Your task to perform on an android device: toggle wifi Image 0: 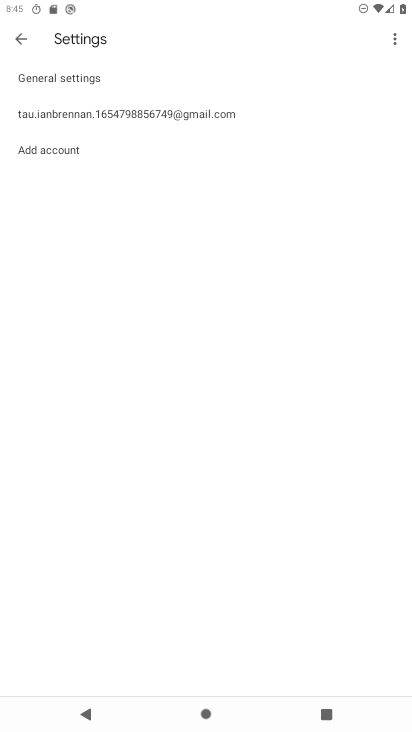
Step 0: press home button
Your task to perform on an android device: toggle wifi Image 1: 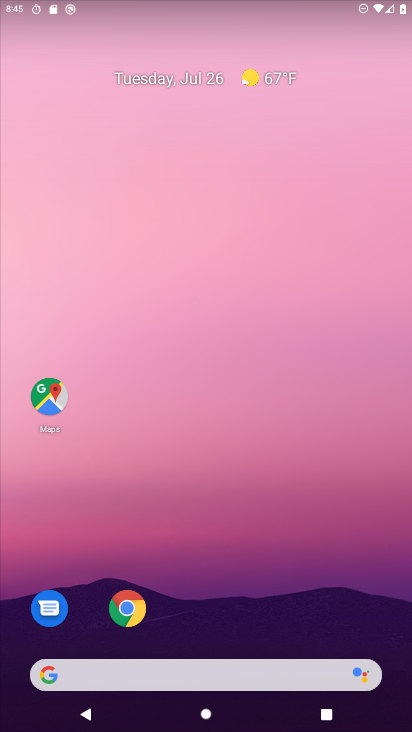
Step 1: drag from (239, 657) to (264, 262)
Your task to perform on an android device: toggle wifi Image 2: 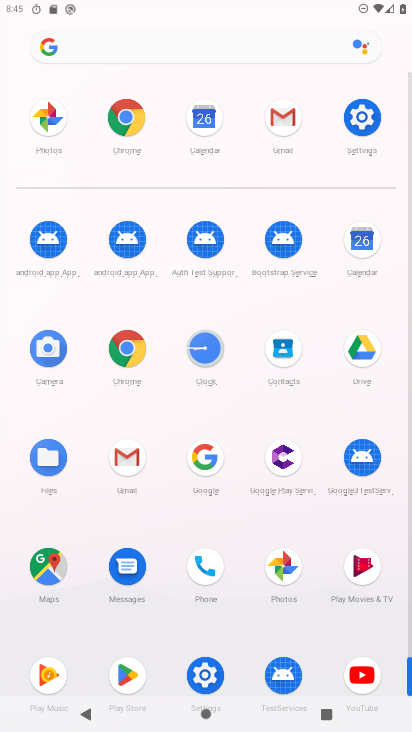
Step 2: click (368, 137)
Your task to perform on an android device: toggle wifi Image 3: 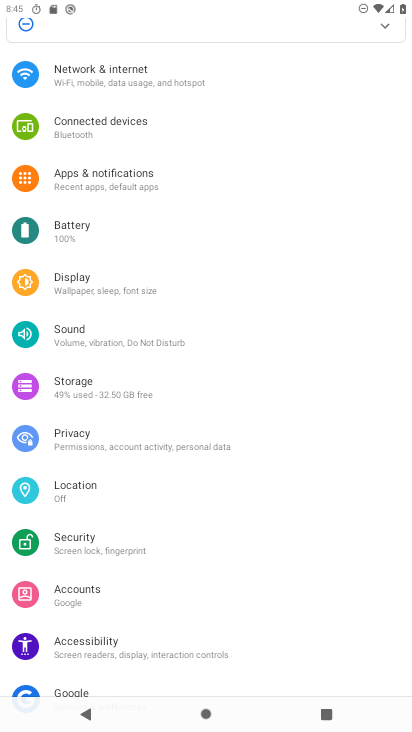
Step 3: click (127, 73)
Your task to perform on an android device: toggle wifi Image 4: 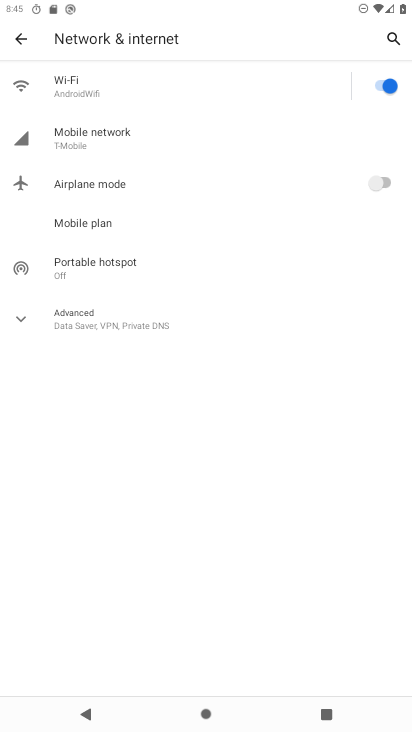
Step 4: click (367, 89)
Your task to perform on an android device: toggle wifi Image 5: 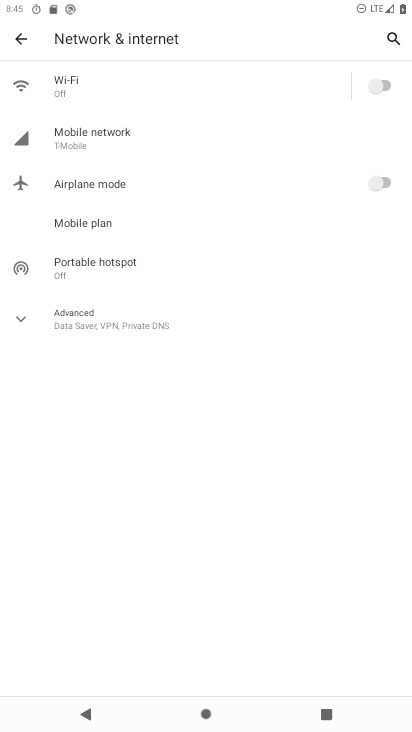
Step 5: task complete